Your task to perform on an android device: turn notification dots on Image 0: 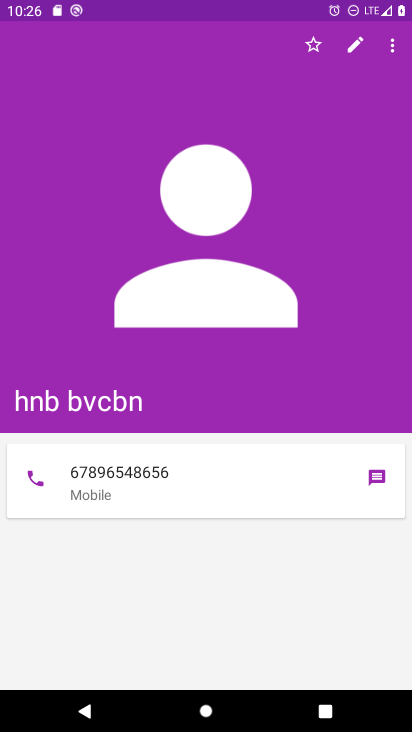
Step 0: press home button
Your task to perform on an android device: turn notification dots on Image 1: 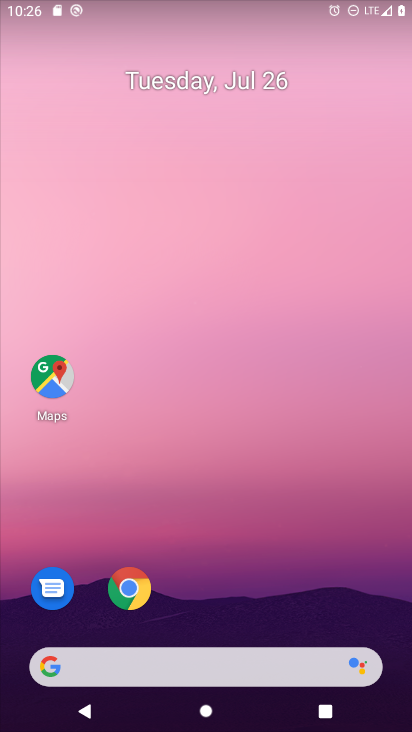
Step 1: click (231, 318)
Your task to perform on an android device: turn notification dots on Image 2: 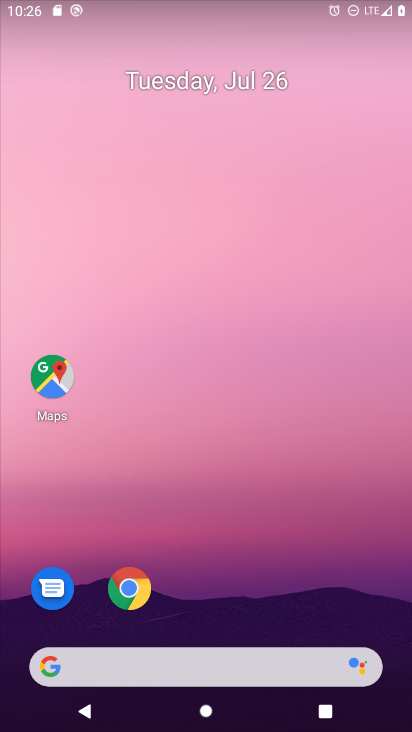
Step 2: drag from (185, 618) to (213, 194)
Your task to perform on an android device: turn notification dots on Image 3: 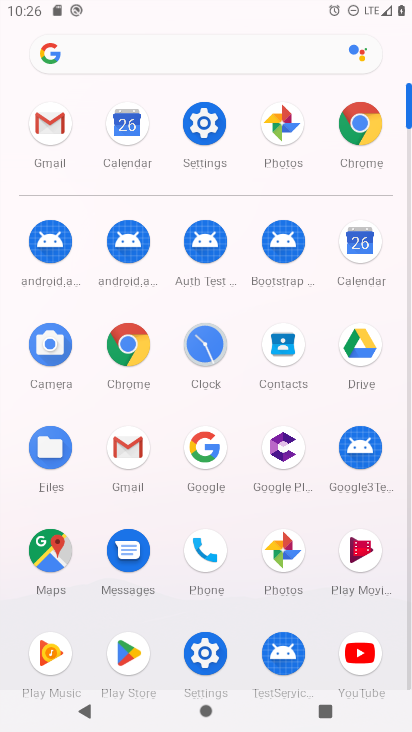
Step 3: click (207, 132)
Your task to perform on an android device: turn notification dots on Image 4: 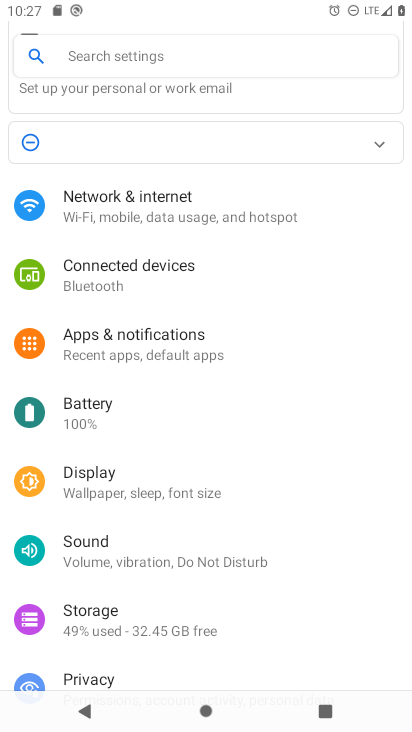
Step 4: click (125, 344)
Your task to perform on an android device: turn notification dots on Image 5: 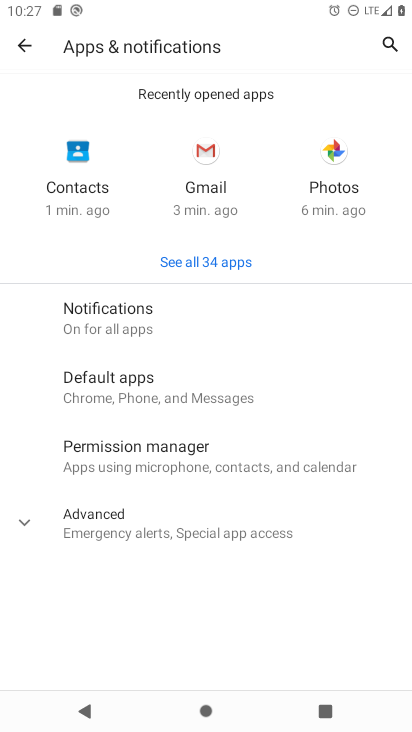
Step 5: click (165, 326)
Your task to perform on an android device: turn notification dots on Image 6: 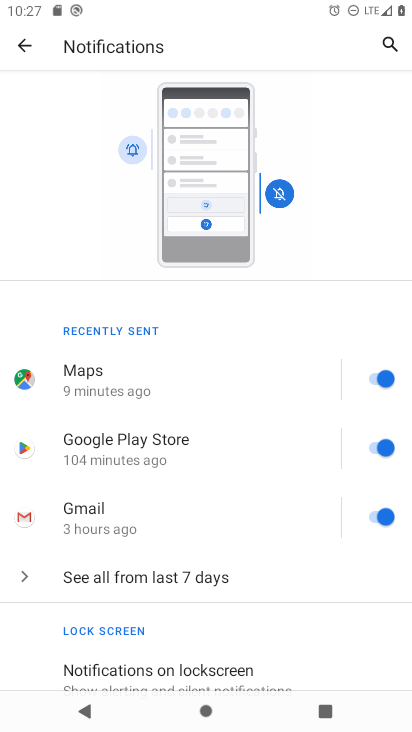
Step 6: drag from (231, 581) to (269, 190)
Your task to perform on an android device: turn notification dots on Image 7: 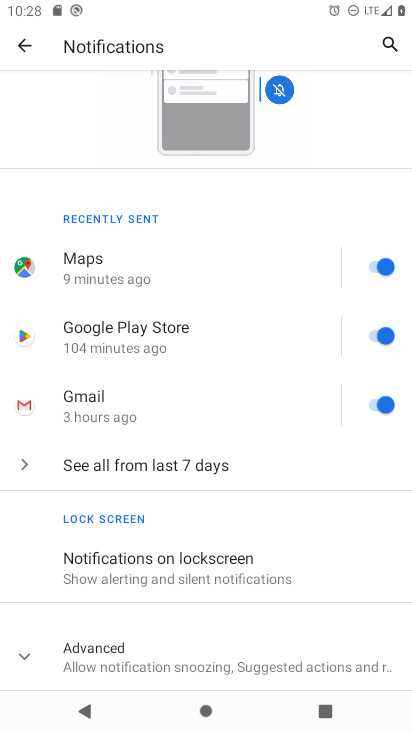
Step 7: drag from (224, 542) to (230, 390)
Your task to perform on an android device: turn notification dots on Image 8: 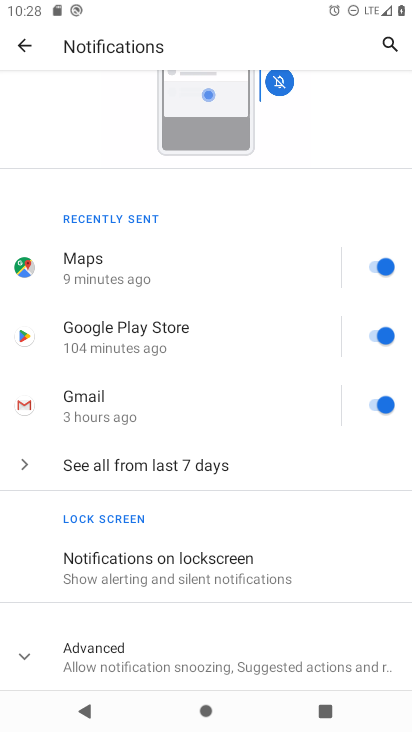
Step 8: click (193, 657)
Your task to perform on an android device: turn notification dots on Image 9: 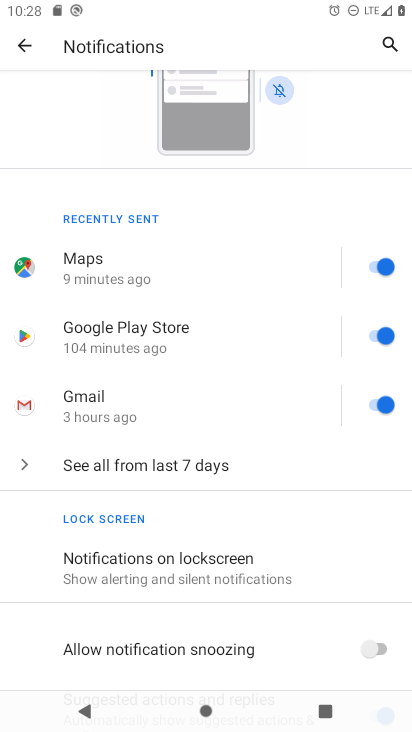
Step 9: drag from (187, 538) to (210, 318)
Your task to perform on an android device: turn notification dots on Image 10: 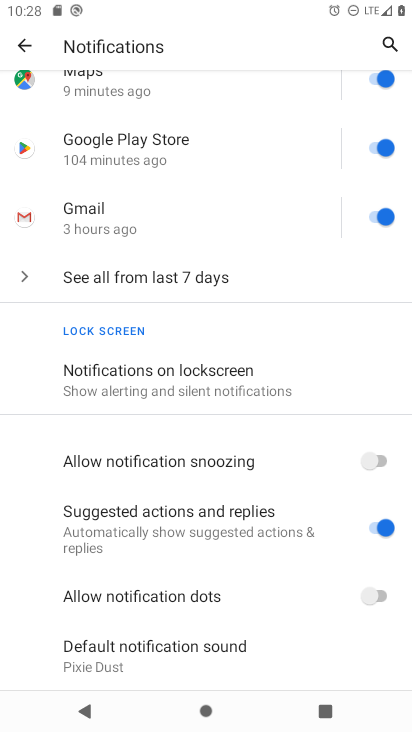
Step 10: click (382, 603)
Your task to perform on an android device: turn notification dots on Image 11: 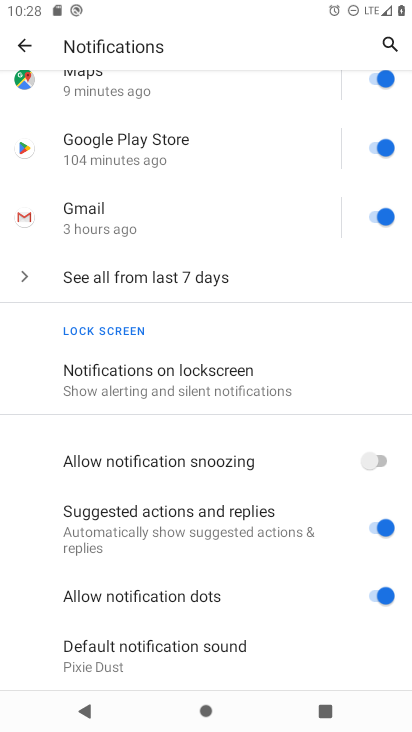
Step 11: task complete